Your task to perform on an android device: Go to sound settings Image 0: 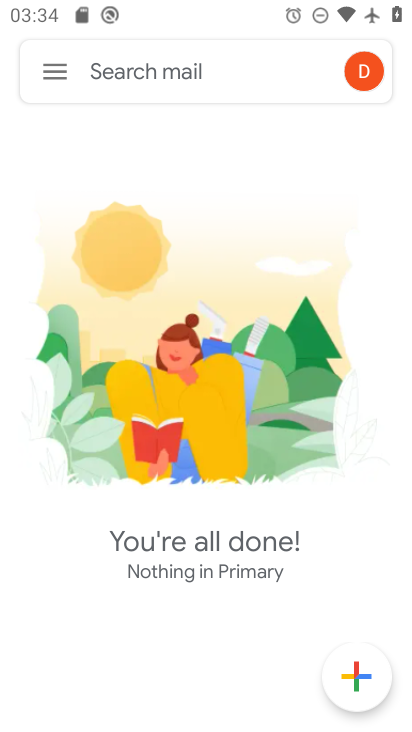
Step 0: press home button
Your task to perform on an android device: Go to sound settings Image 1: 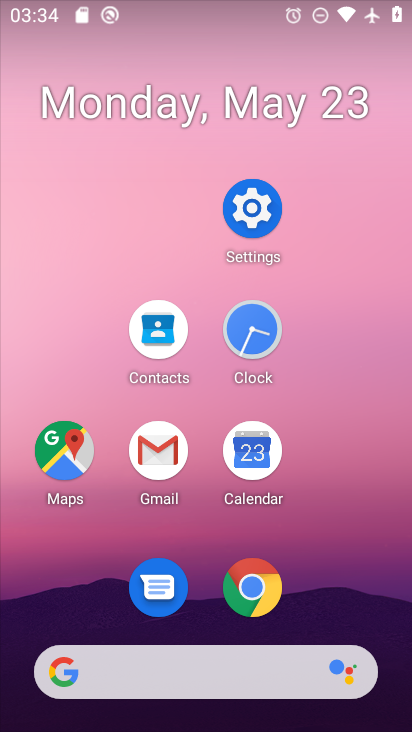
Step 1: click (245, 217)
Your task to perform on an android device: Go to sound settings Image 2: 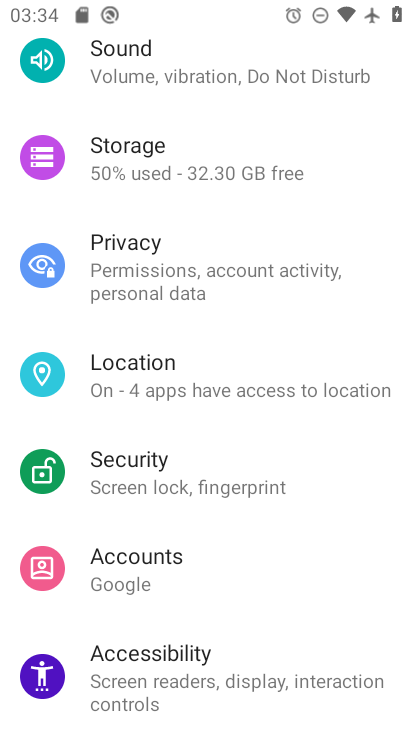
Step 2: click (231, 424)
Your task to perform on an android device: Go to sound settings Image 3: 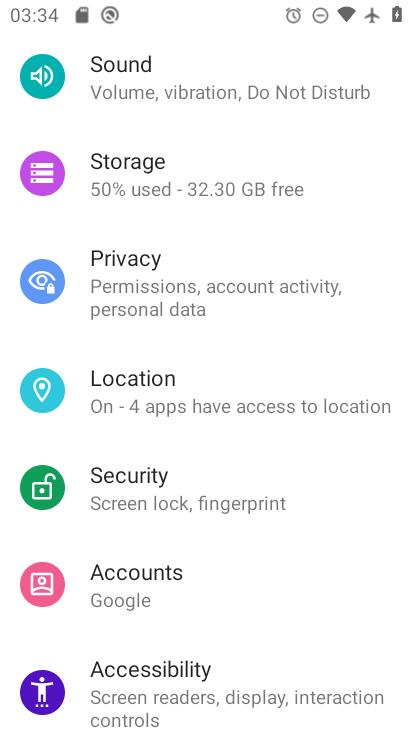
Step 3: click (286, 68)
Your task to perform on an android device: Go to sound settings Image 4: 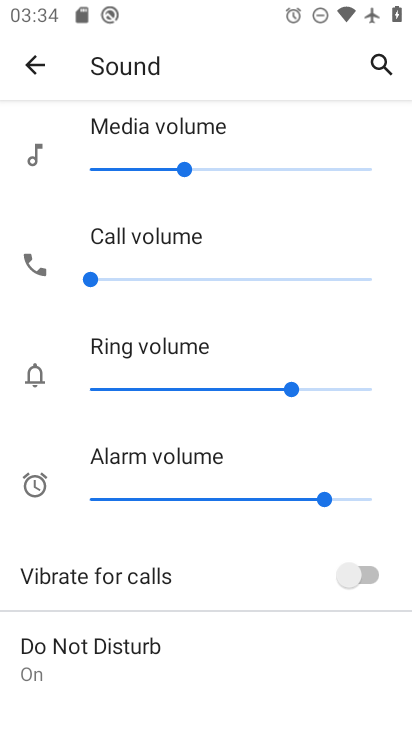
Step 4: task complete